Your task to perform on an android device: add a contact in the contacts app Image 0: 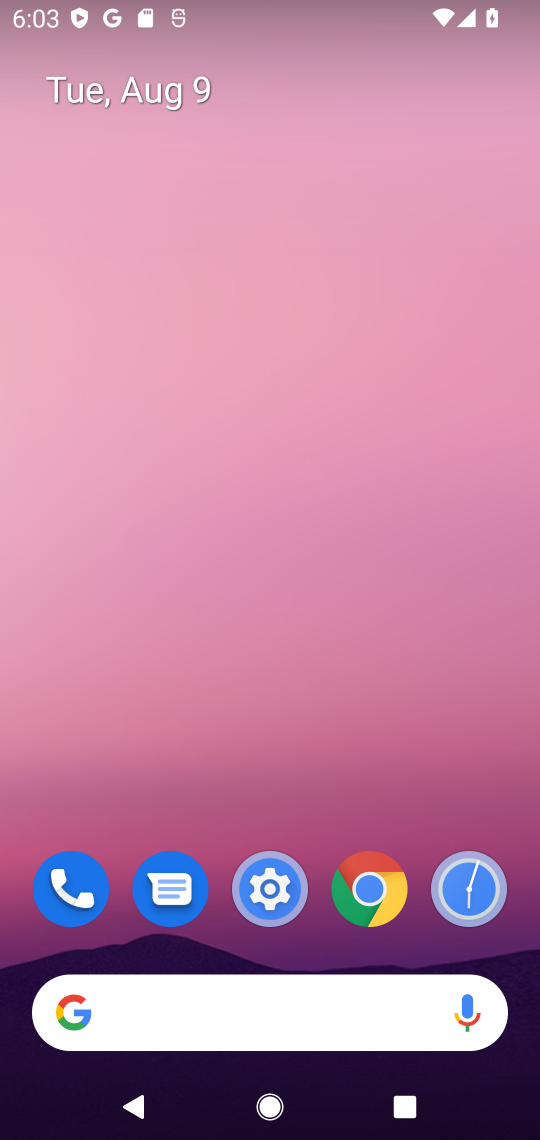
Step 0: drag from (269, 999) to (452, 191)
Your task to perform on an android device: add a contact in the contacts app Image 1: 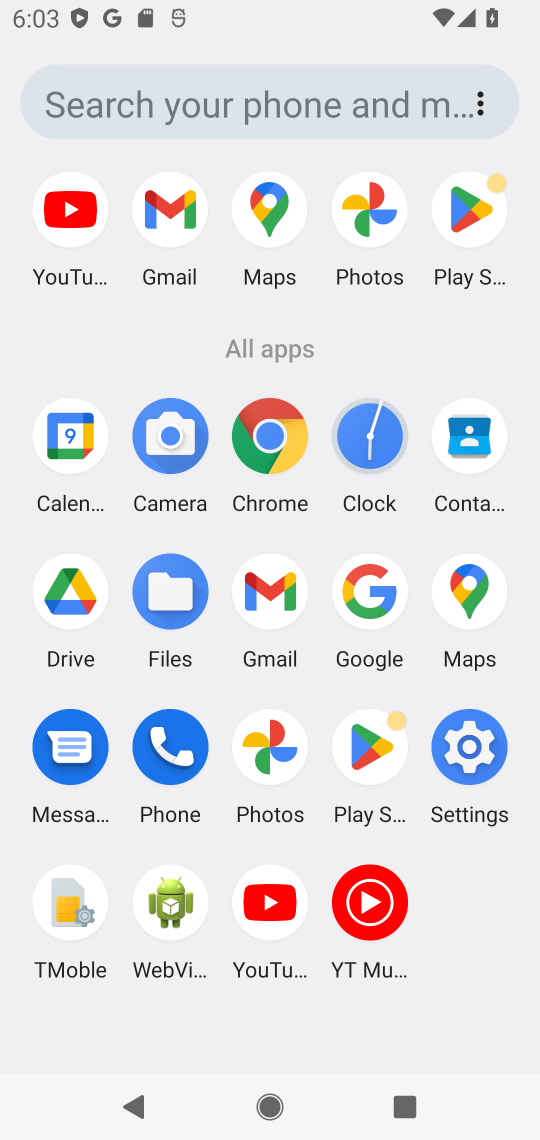
Step 1: click (452, 448)
Your task to perform on an android device: add a contact in the contacts app Image 2: 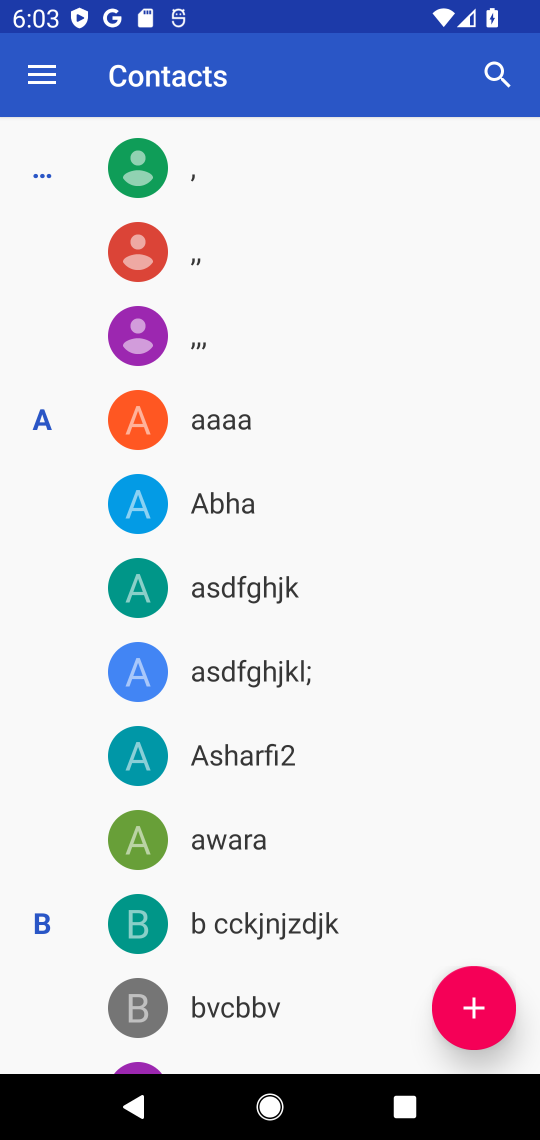
Step 2: click (451, 1004)
Your task to perform on an android device: add a contact in the contacts app Image 3: 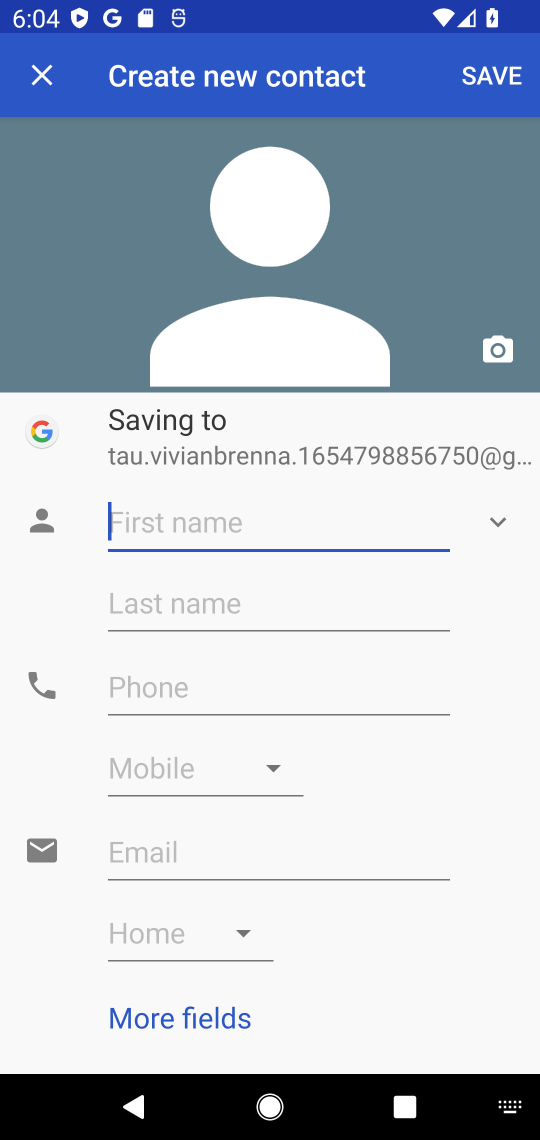
Step 3: type "xxmbvsd"
Your task to perform on an android device: add a contact in the contacts app Image 4: 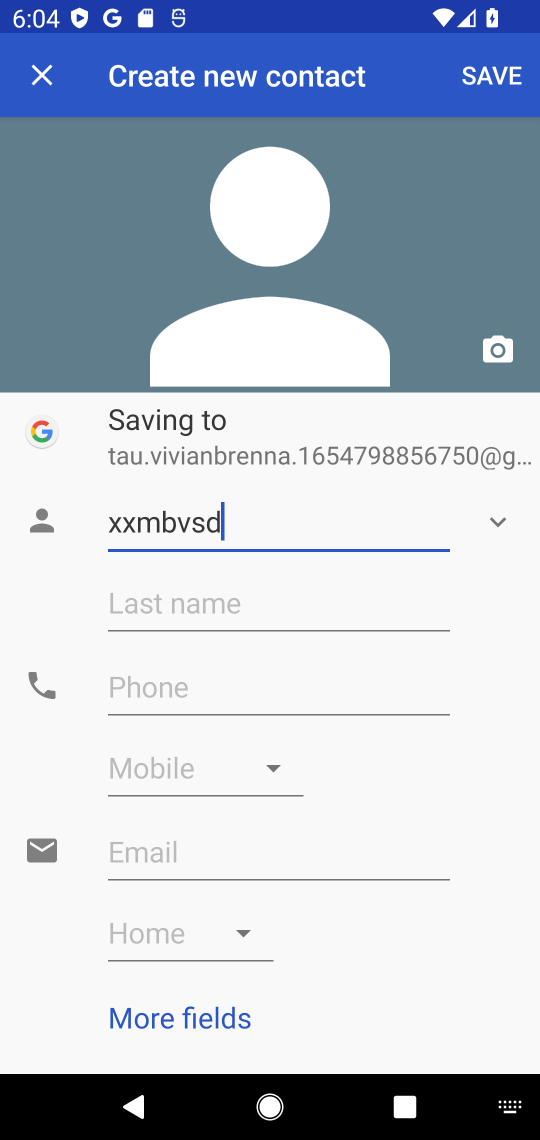
Step 4: click (232, 684)
Your task to perform on an android device: add a contact in the contacts app Image 5: 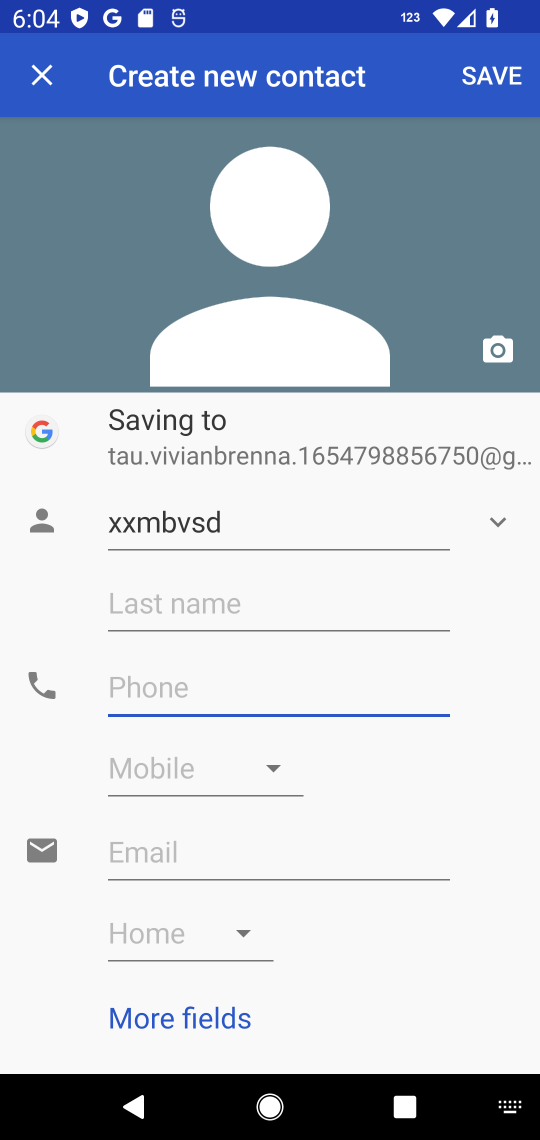
Step 5: type "34768344"
Your task to perform on an android device: add a contact in the contacts app Image 6: 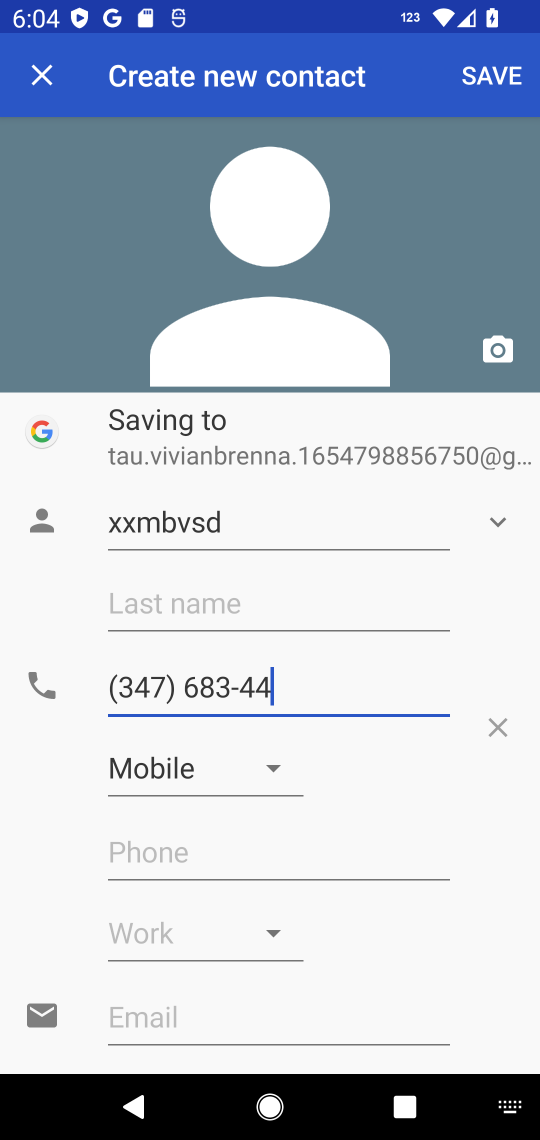
Step 6: click (483, 93)
Your task to perform on an android device: add a contact in the contacts app Image 7: 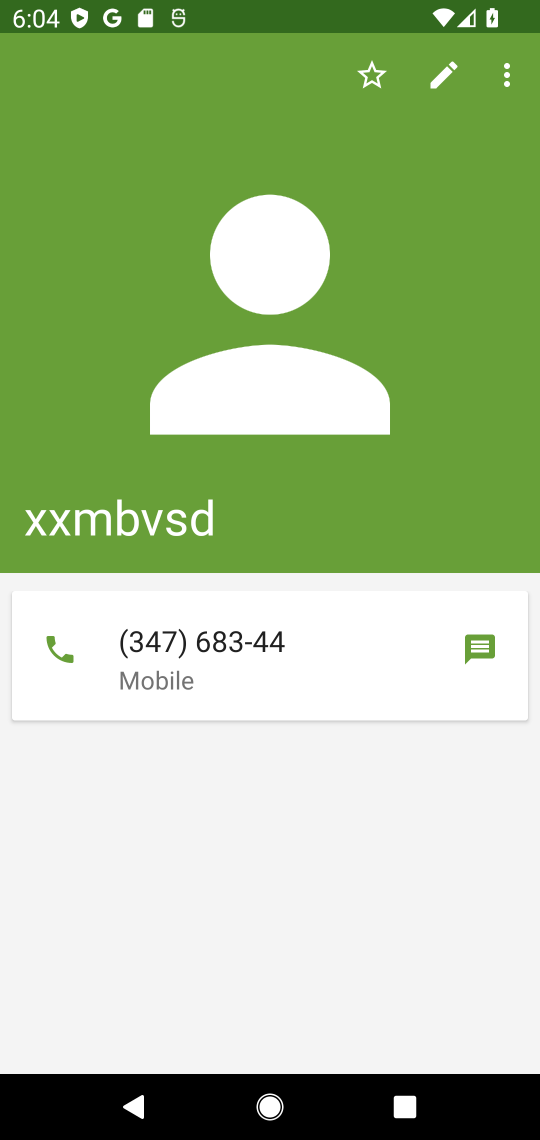
Step 7: task complete